Your task to perform on an android device: Go to eBay Image 0: 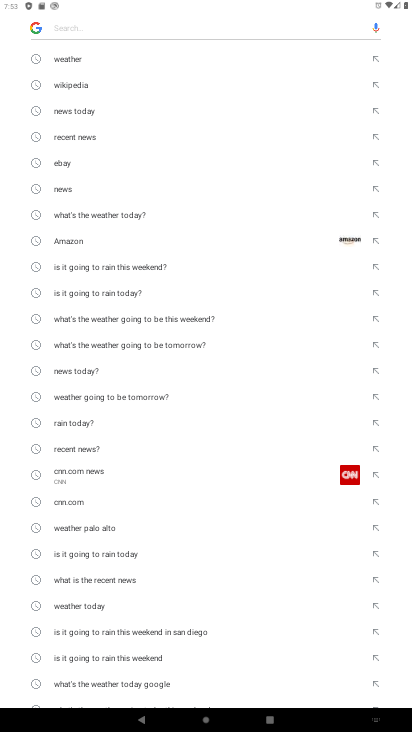
Step 0: press home button
Your task to perform on an android device: Go to eBay Image 1: 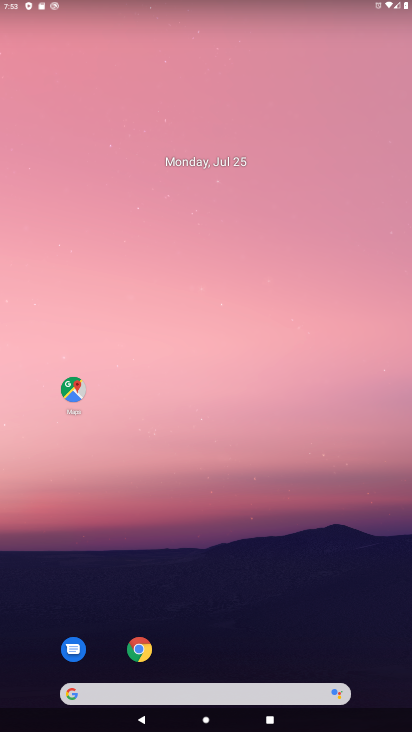
Step 1: click (138, 654)
Your task to perform on an android device: Go to eBay Image 2: 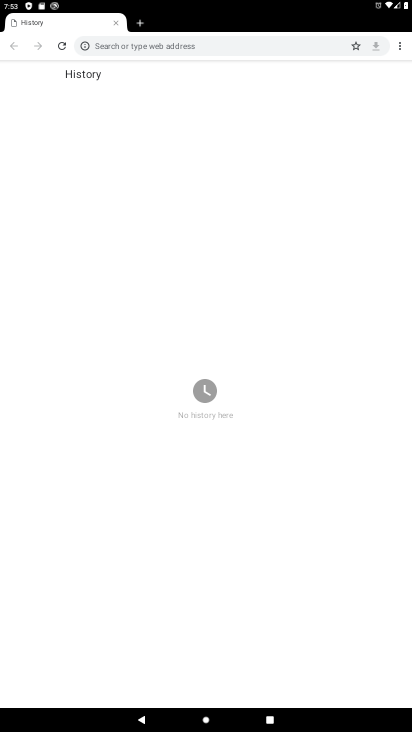
Step 2: click (156, 49)
Your task to perform on an android device: Go to eBay Image 3: 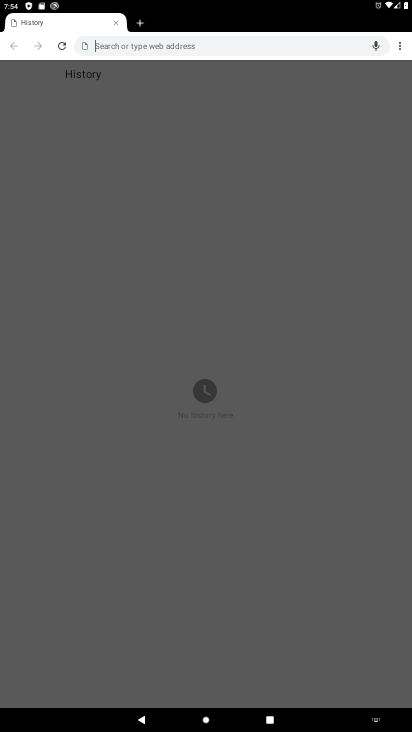
Step 3: type "eBay"
Your task to perform on an android device: Go to eBay Image 4: 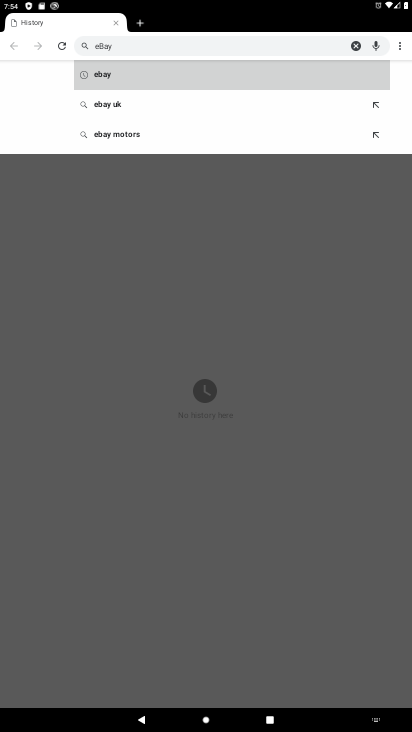
Step 4: click (108, 68)
Your task to perform on an android device: Go to eBay Image 5: 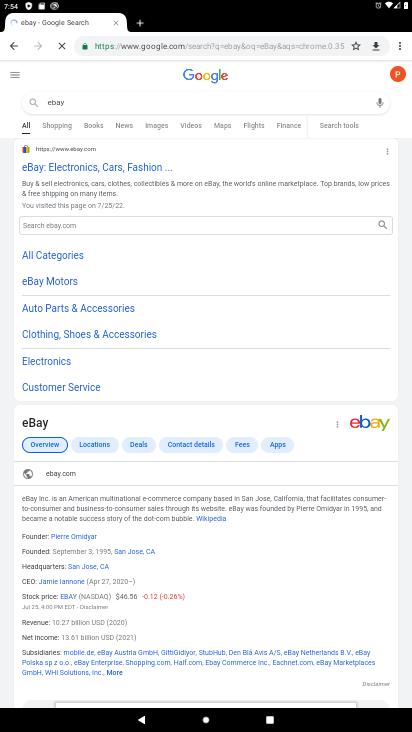
Step 5: click (53, 166)
Your task to perform on an android device: Go to eBay Image 6: 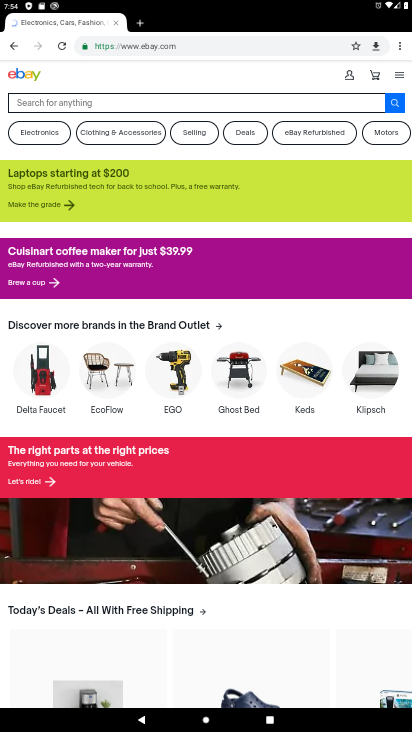
Step 6: task complete